Your task to perform on an android device: install app "eBay: The shopping marketplace" Image 0: 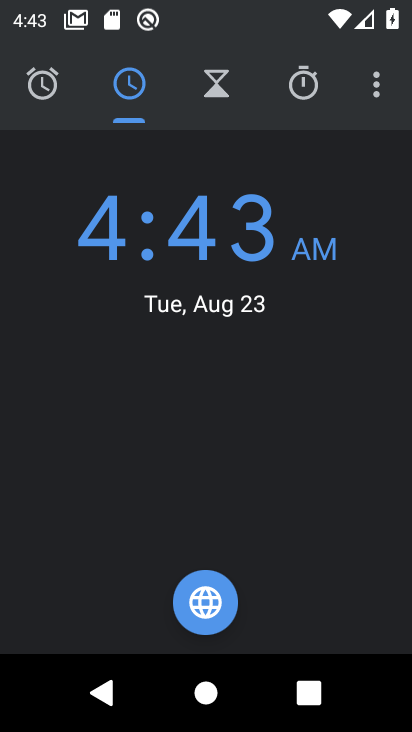
Step 0: press home button
Your task to perform on an android device: install app "eBay: The shopping marketplace" Image 1: 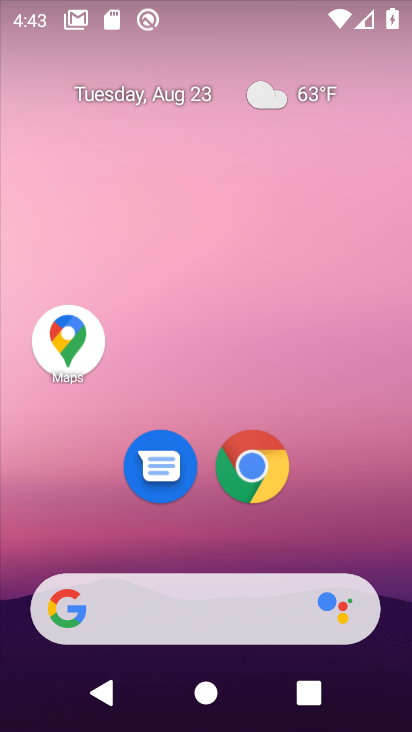
Step 1: drag from (237, 560) to (372, 0)
Your task to perform on an android device: install app "eBay: The shopping marketplace" Image 2: 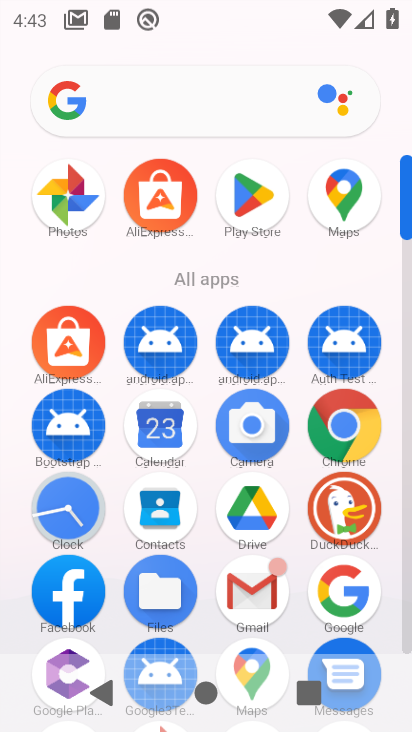
Step 2: click (254, 215)
Your task to perform on an android device: install app "eBay: The shopping marketplace" Image 3: 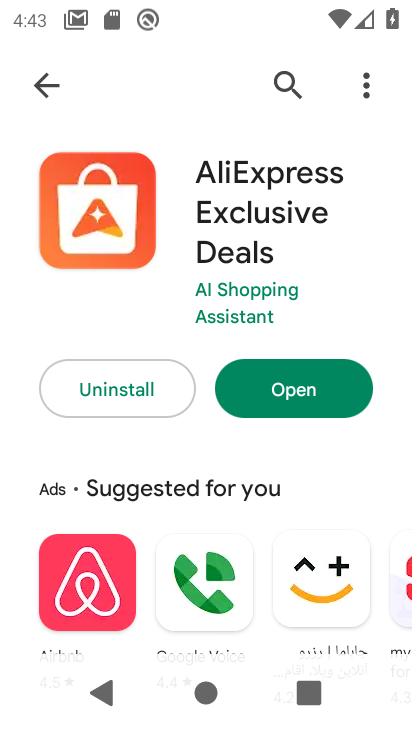
Step 3: click (45, 87)
Your task to perform on an android device: install app "eBay: The shopping marketplace" Image 4: 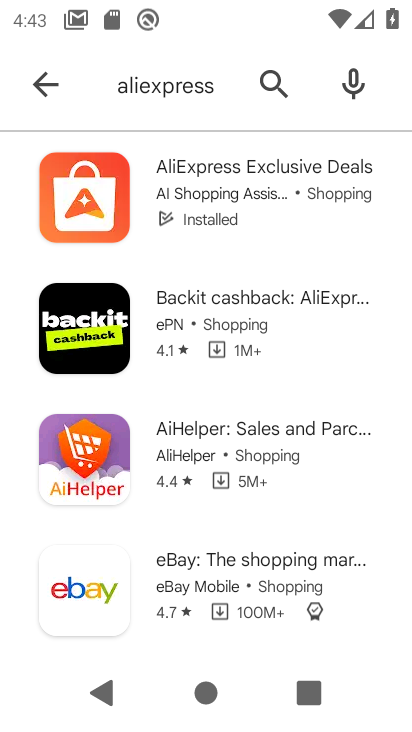
Step 4: click (181, 92)
Your task to perform on an android device: install app "eBay: The shopping marketplace" Image 5: 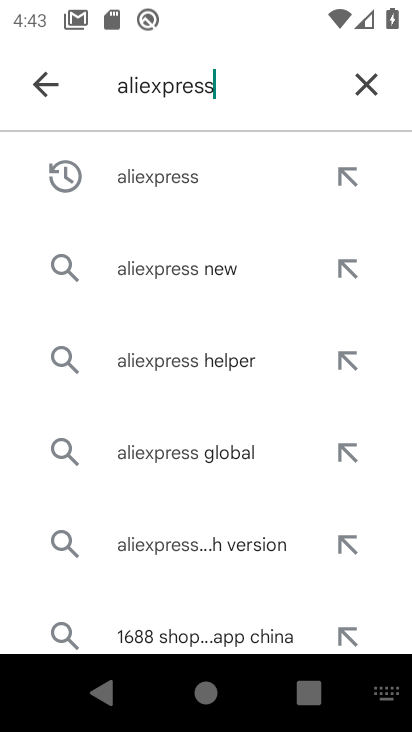
Step 5: click (374, 86)
Your task to perform on an android device: install app "eBay: The shopping marketplace" Image 6: 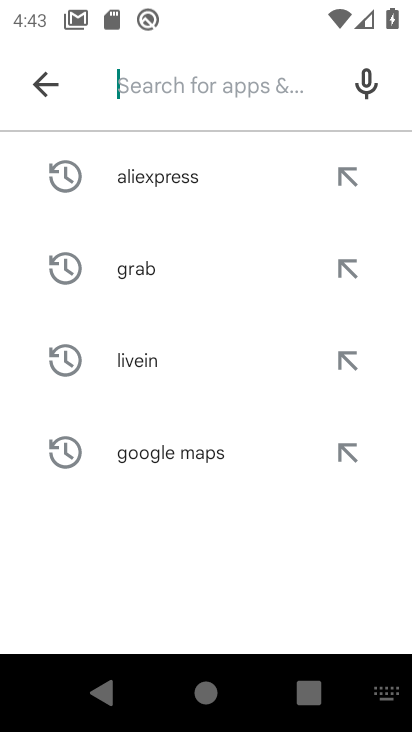
Step 6: type "eBay"
Your task to perform on an android device: install app "eBay: The shopping marketplace" Image 7: 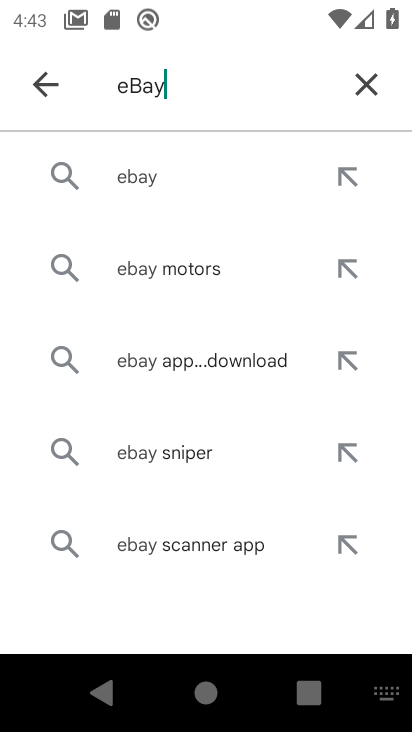
Step 7: click (180, 179)
Your task to perform on an android device: install app "eBay: The shopping marketplace" Image 8: 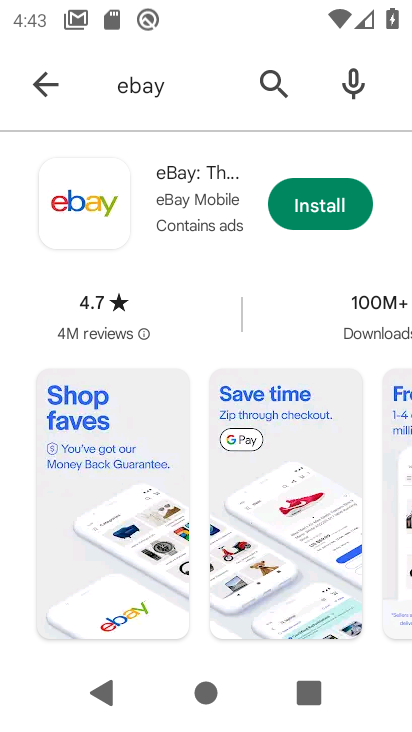
Step 8: click (344, 204)
Your task to perform on an android device: install app "eBay: The shopping marketplace" Image 9: 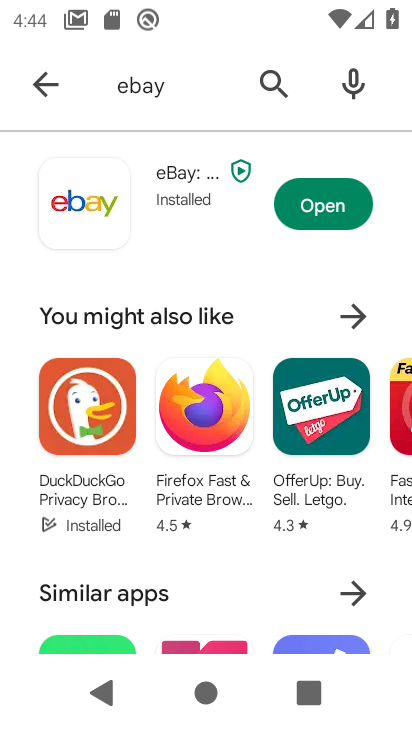
Step 9: task complete